Your task to perform on an android device: Open Chrome and go to the settings page Image 0: 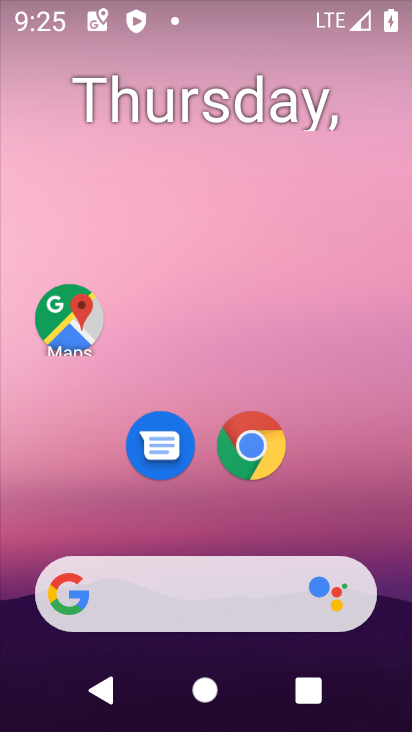
Step 0: click (275, 460)
Your task to perform on an android device: Open Chrome and go to the settings page Image 1: 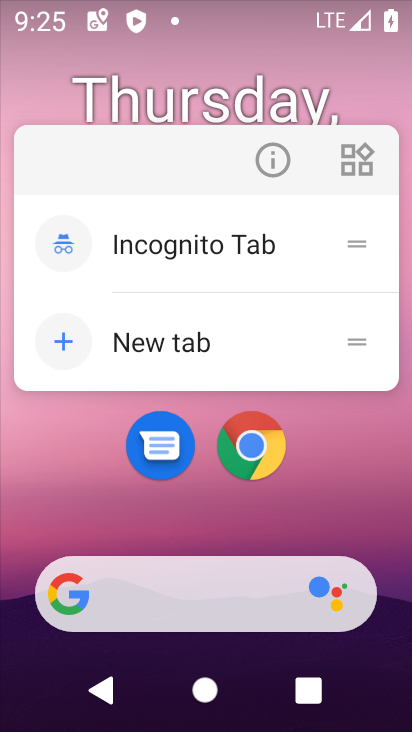
Step 1: click (257, 457)
Your task to perform on an android device: Open Chrome and go to the settings page Image 2: 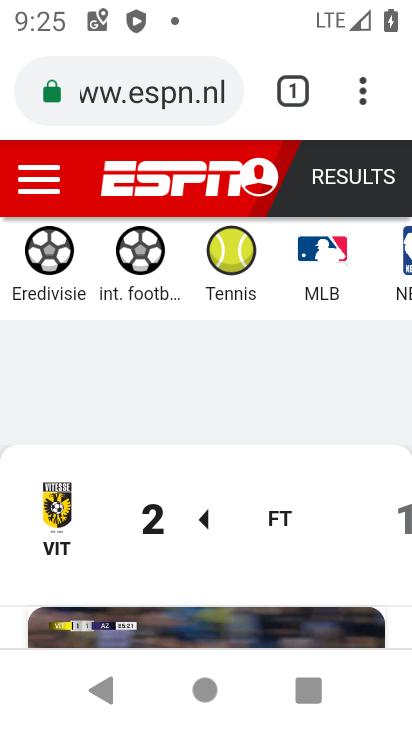
Step 2: task complete